Your task to perform on an android device: see tabs open on other devices in the chrome app Image 0: 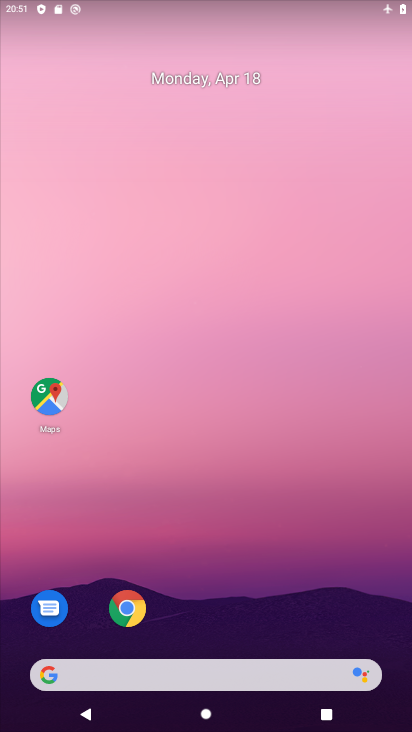
Step 0: drag from (213, 275) to (225, 106)
Your task to perform on an android device: see tabs open on other devices in the chrome app Image 1: 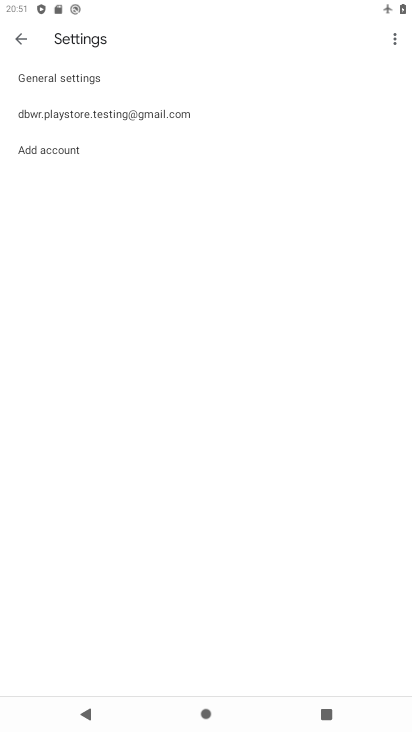
Step 1: press home button
Your task to perform on an android device: see tabs open on other devices in the chrome app Image 2: 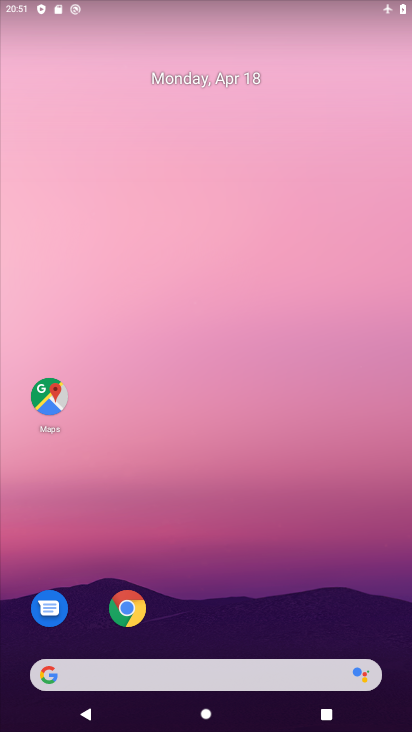
Step 2: click (125, 608)
Your task to perform on an android device: see tabs open on other devices in the chrome app Image 3: 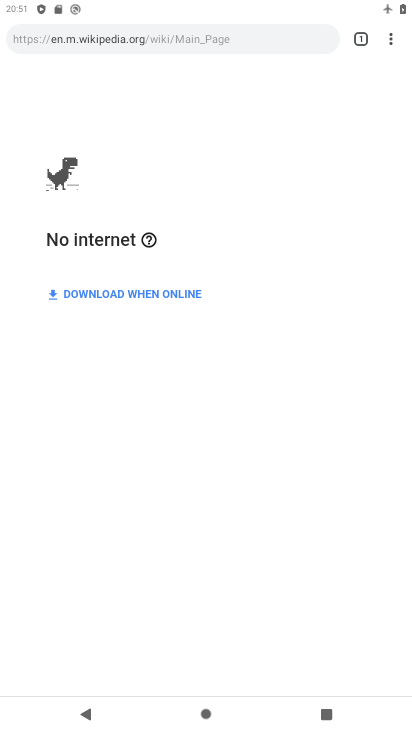
Step 3: click (362, 42)
Your task to perform on an android device: see tabs open on other devices in the chrome app Image 4: 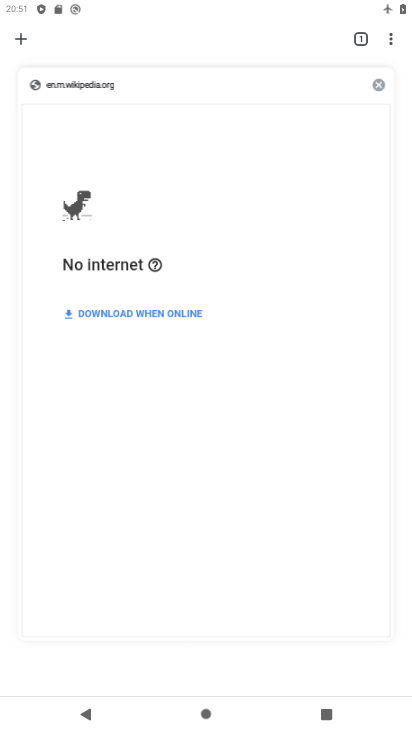
Step 4: task complete